Your task to perform on an android device: clear history in the chrome app Image 0: 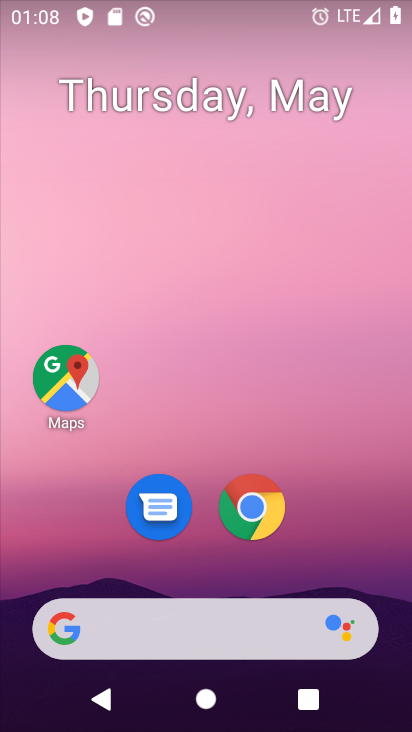
Step 0: click (258, 511)
Your task to perform on an android device: clear history in the chrome app Image 1: 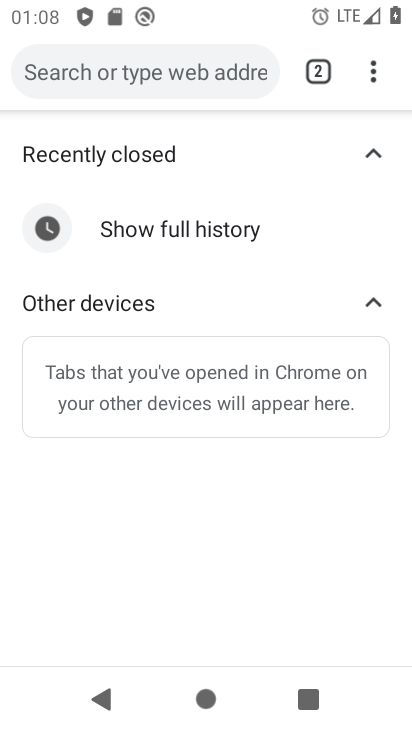
Step 1: click (360, 82)
Your task to perform on an android device: clear history in the chrome app Image 2: 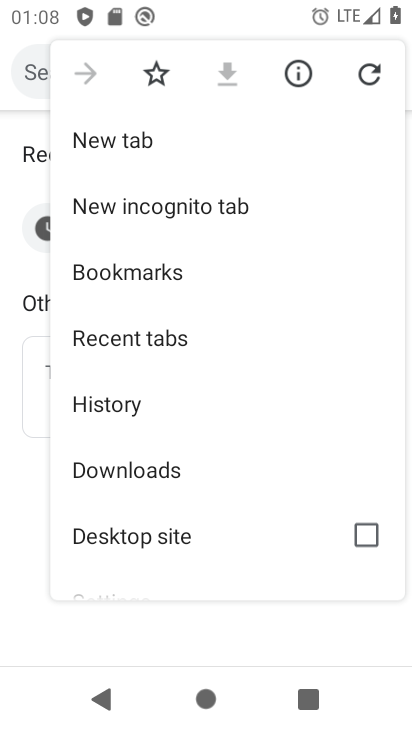
Step 2: click (136, 400)
Your task to perform on an android device: clear history in the chrome app Image 3: 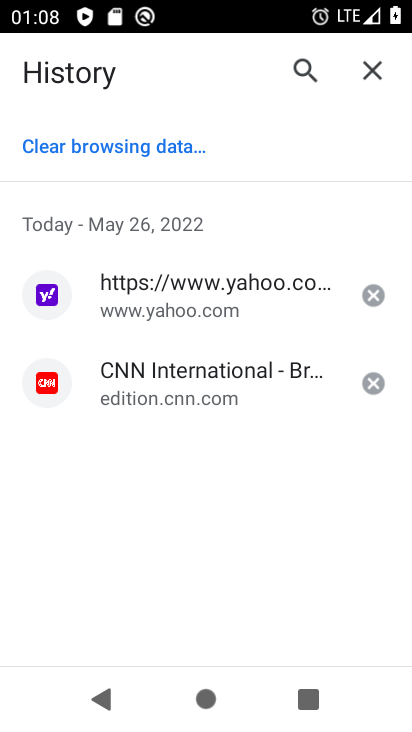
Step 3: click (136, 146)
Your task to perform on an android device: clear history in the chrome app Image 4: 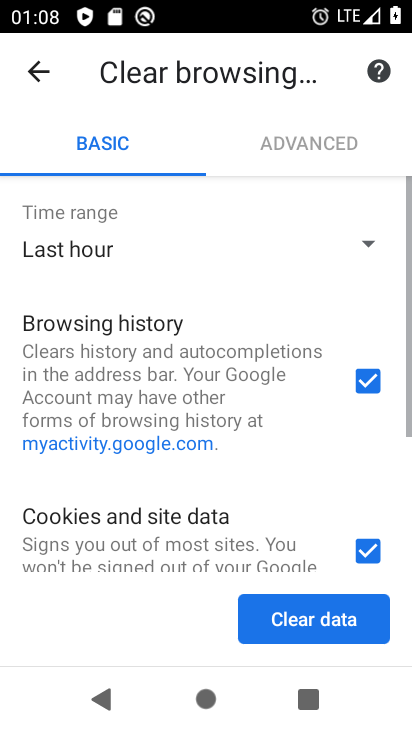
Step 4: drag from (302, 560) to (310, 310)
Your task to perform on an android device: clear history in the chrome app Image 5: 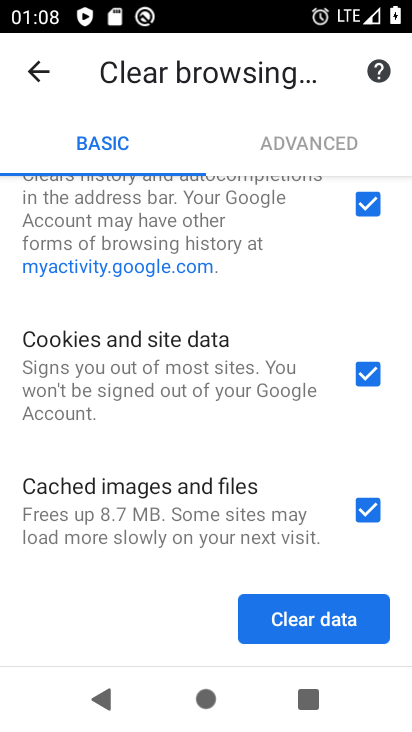
Step 5: click (302, 608)
Your task to perform on an android device: clear history in the chrome app Image 6: 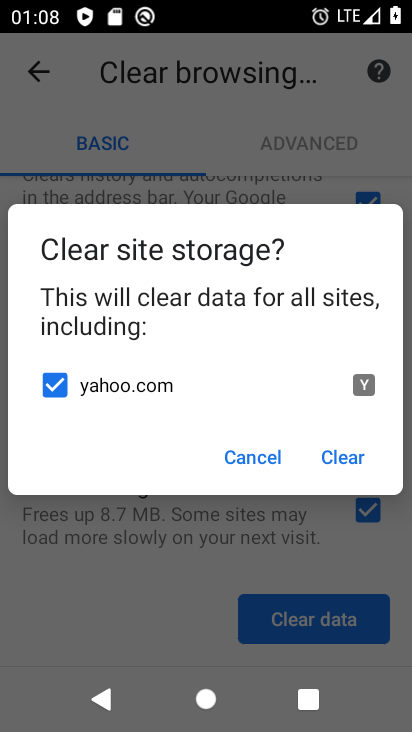
Step 6: click (324, 456)
Your task to perform on an android device: clear history in the chrome app Image 7: 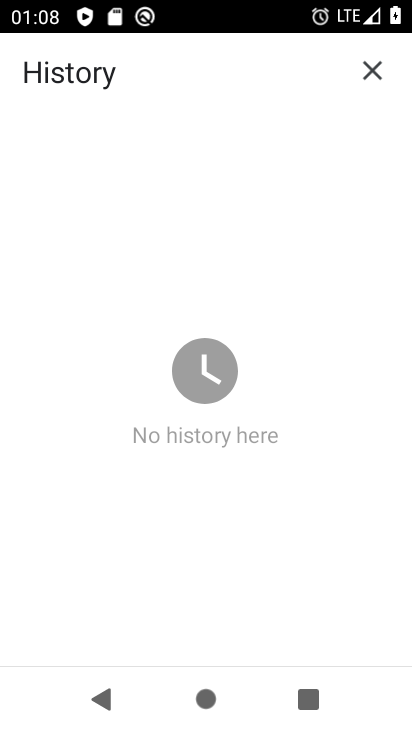
Step 7: task complete